Your task to perform on an android device: What's on my calendar today? Image 0: 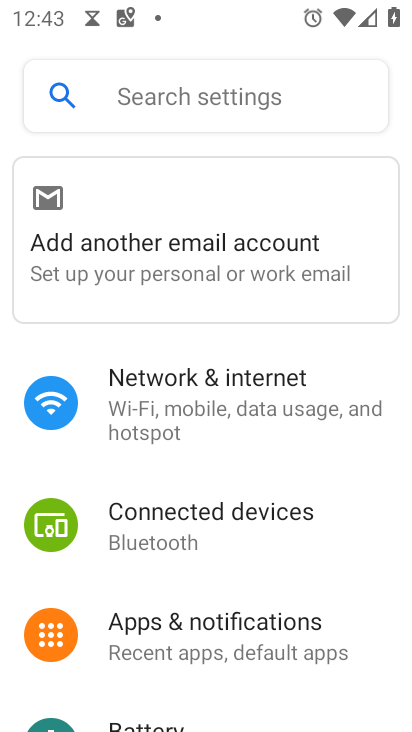
Step 0: press home button
Your task to perform on an android device: What's on my calendar today? Image 1: 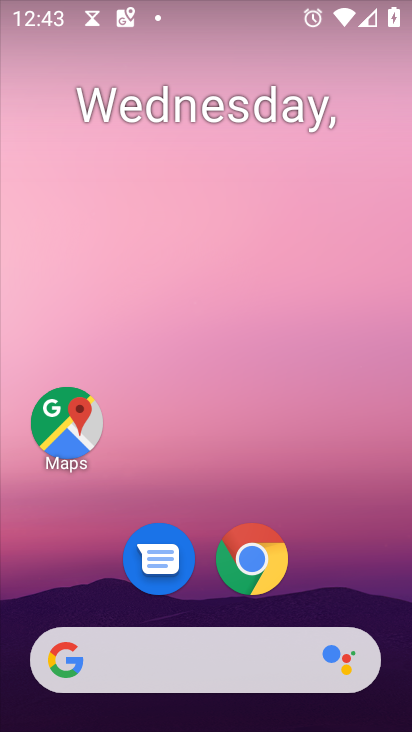
Step 1: drag from (382, 563) to (157, 9)
Your task to perform on an android device: What's on my calendar today? Image 2: 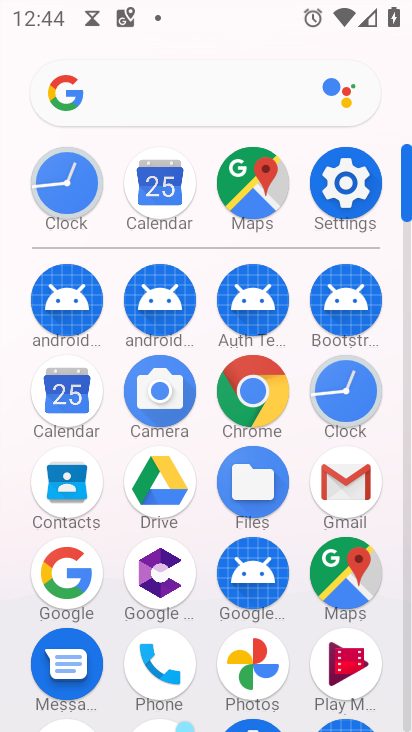
Step 2: click (57, 418)
Your task to perform on an android device: What's on my calendar today? Image 3: 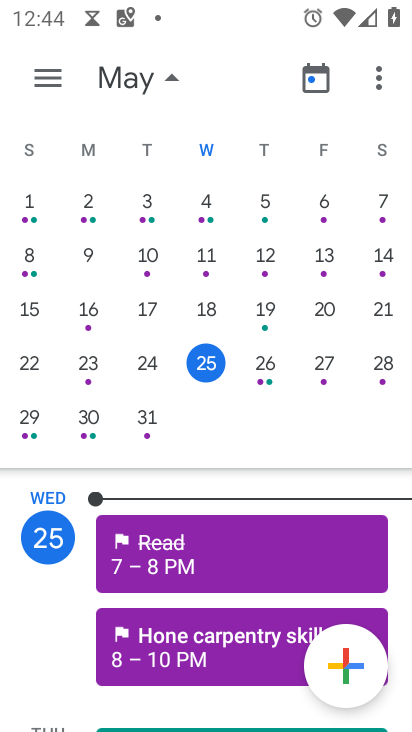
Step 3: task complete